Your task to perform on an android device: What is the capital of China? Image 0: 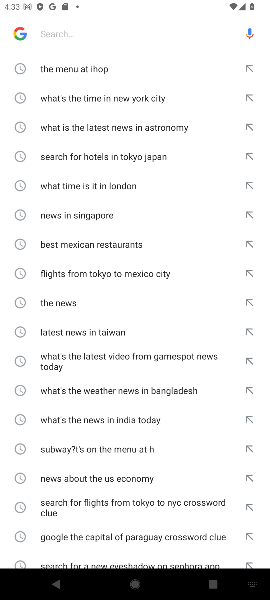
Step 0: click (152, 58)
Your task to perform on an android device: What is the capital of China? Image 1: 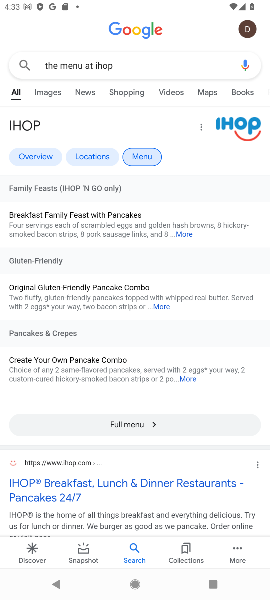
Step 1: task complete